Your task to perform on an android device: Open location settings Image 0: 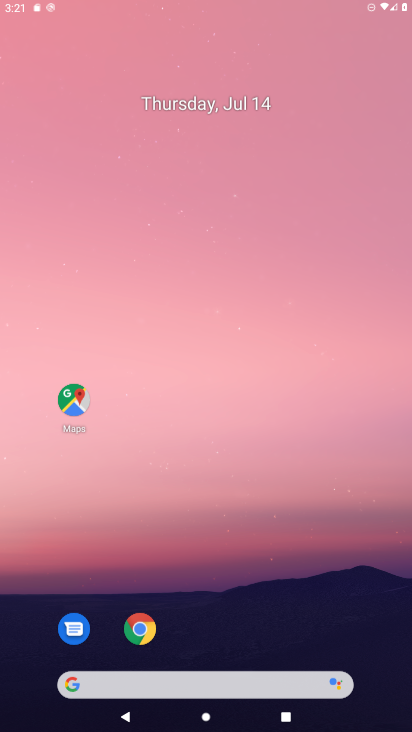
Step 0: press home button
Your task to perform on an android device: Open location settings Image 1: 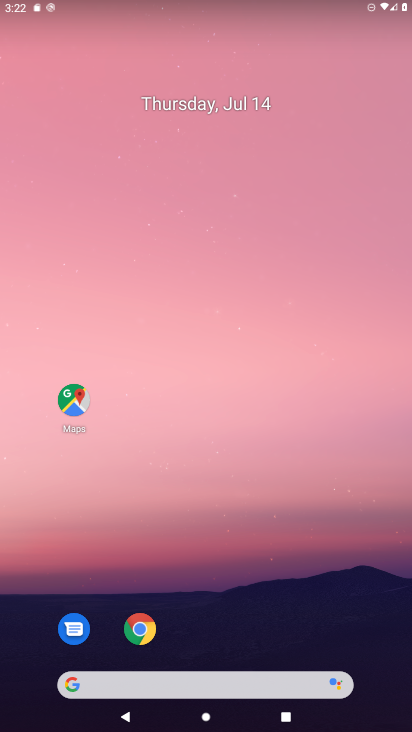
Step 1: drag from (216, 647) to (216, 16)
Your task to perform on an android device: Open location settings Image 2: 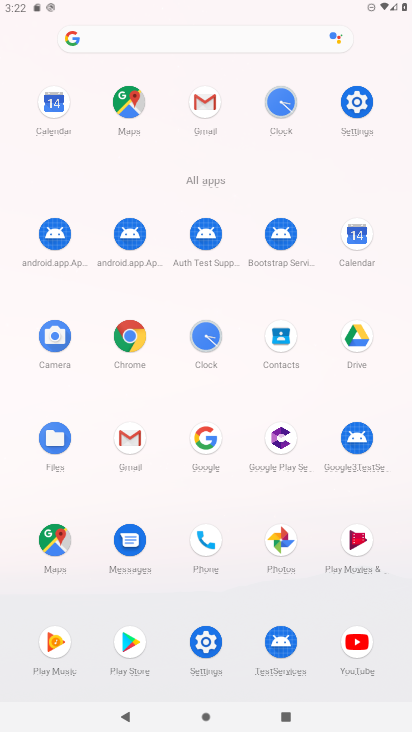
Step 2: click (353, 93)
Your task to perform on an android device: Open location settings Image 3: 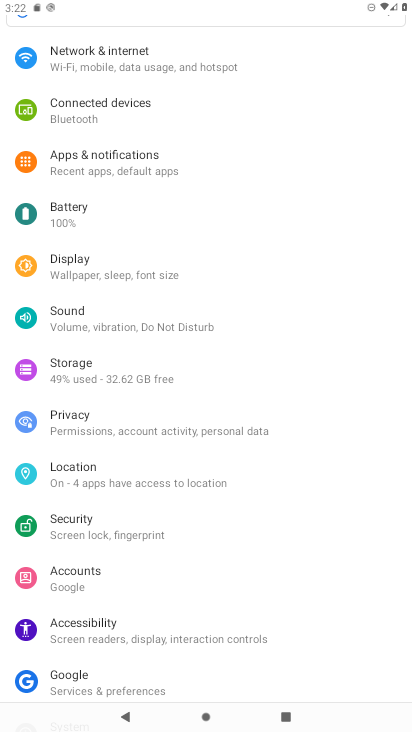
Step 3: click (105, 466)
Your task to perform on an android device: Open location settings Image 4: 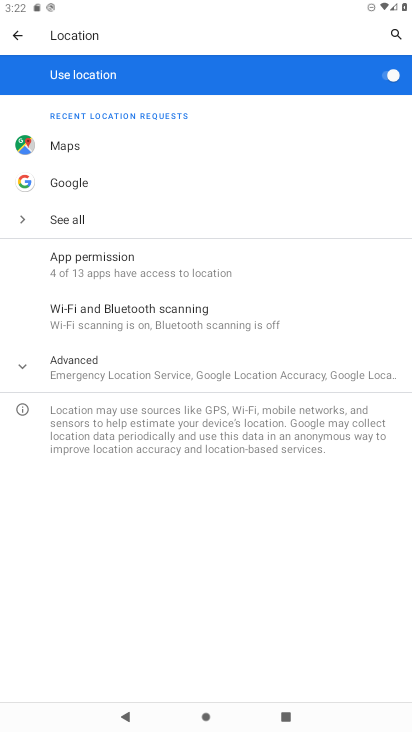
Step 4: click (25, 365)
Your task to perform on an android device: Open location settings Image 5: 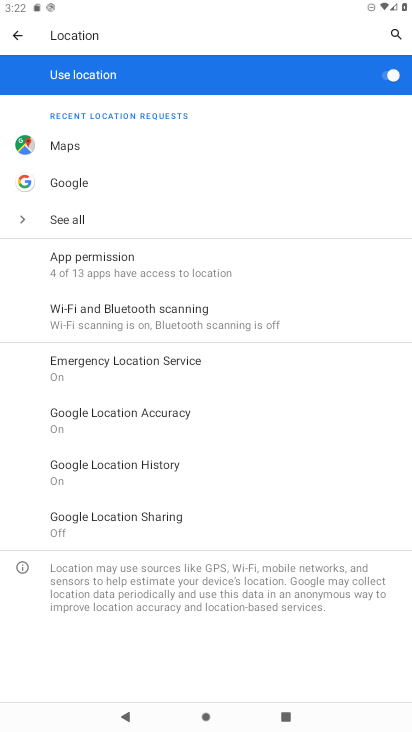
Step 5: task complete